Your task to perform on an android device: Open calendar and show me the first week of next month Image 0: 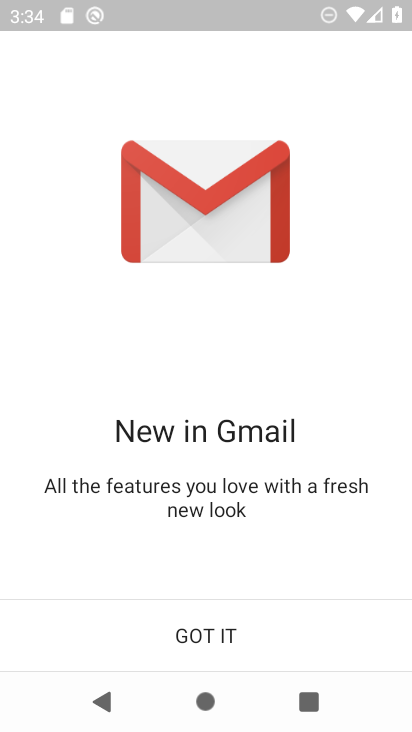
Step 0: press home button
Your task to perform on an android device: Open calendar and show me the first week of next month Image 1: 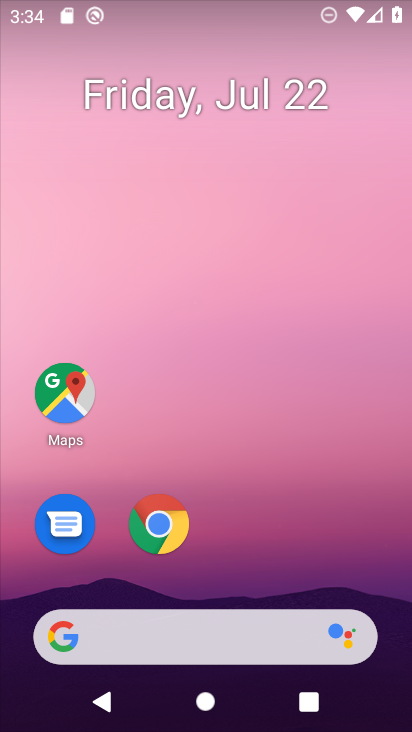
Step 1: drag from (146, 579) to (269, 23)
Your task to perform on an android device: Open calendar and show me the first week of next month Image 2: 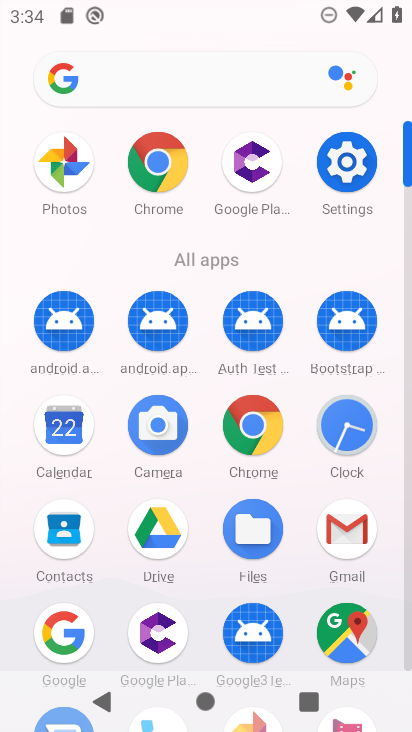
Step 2: click (65, 446)
Your task to perform on an android device: Open calendar and show me the first week of next month Image 3: 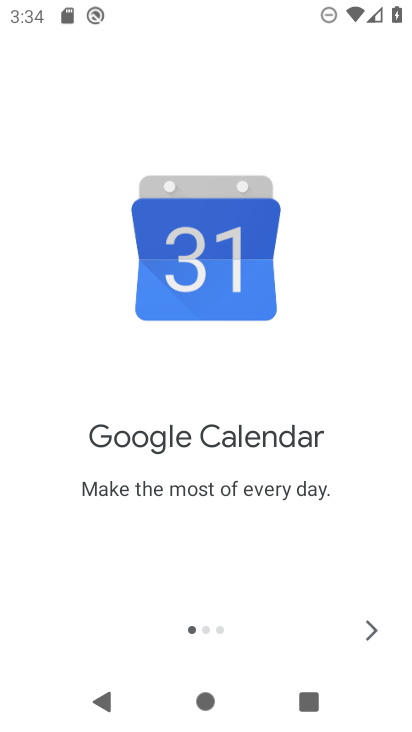
Step 3: click (377, 630)
Your task to perform on an android device: Open calendar and show me the first week of next month Image 4: 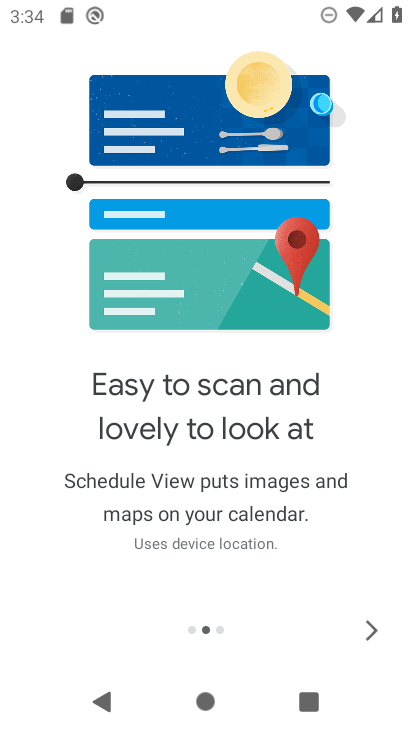
Step 4: click (377, 630)
Your task to perform on an android device: Open calendar and show me the first week of next month Image 5: 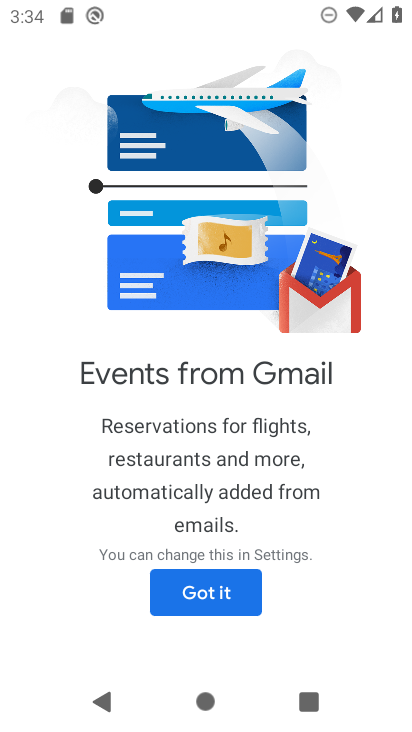
Step 5: click (206, 587)
Your task to perform on an android device: Open calendar and show me the first week of next month Image 6: 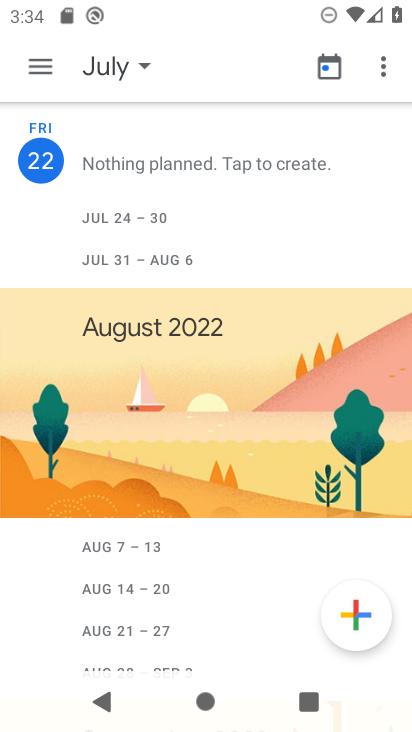
Step 6: click (111, 71)
Your task to perform on an android device: Open calendar and show me the first week of next month Image 7: 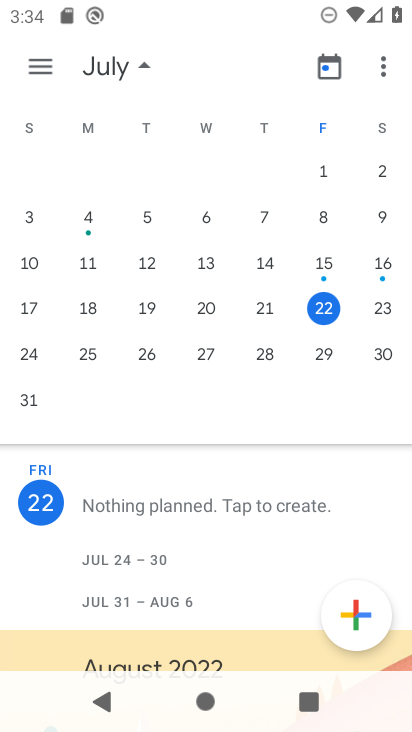
Step 7: drag from (358, 273) to (13, 381)
Your task to perform on an android device: Open calendar and show me the first week of next month Image 8: 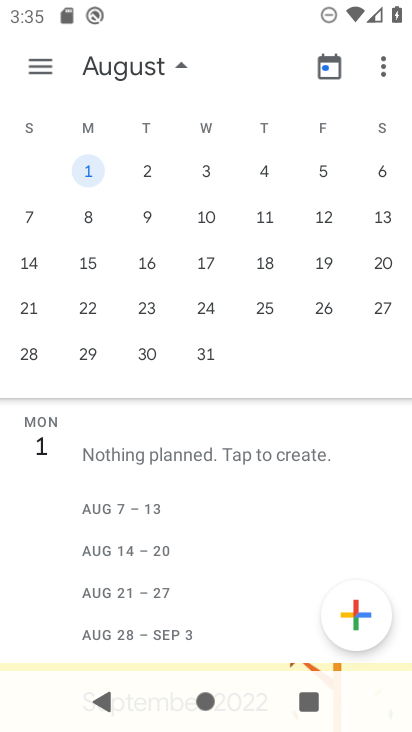
Step 8: click (40, 72)
Your task to perform on an android device: Open calendar and show me the first week of next month Image 9: 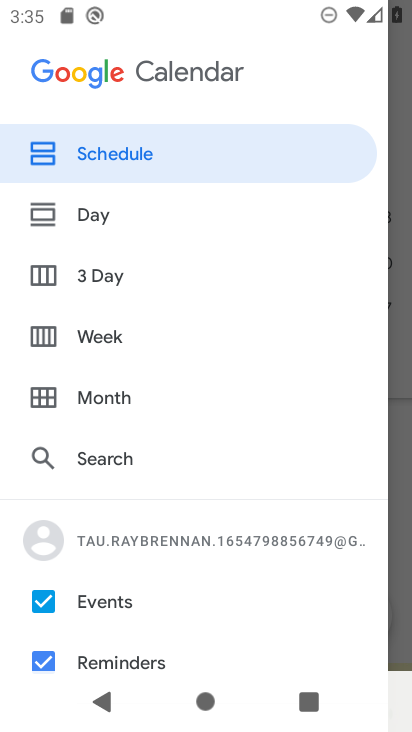
Step 9: click (103, 342)
Your task to perform on an android device: Open calendar and show me the first week of next month Image 10: 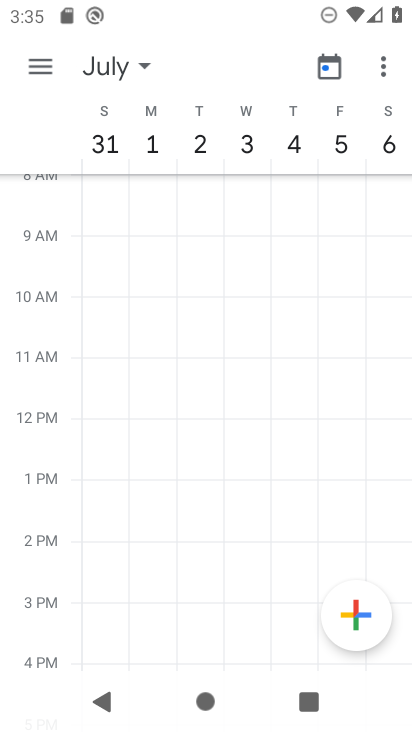
Step 10: task complete